Your task to perform on an android device: turn on location history Image 0: 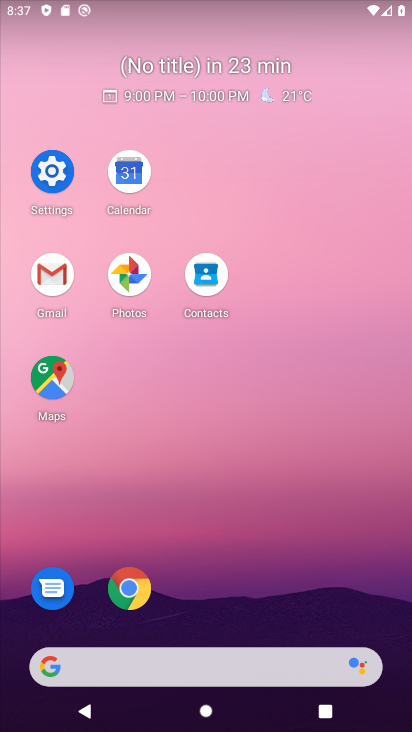
Step 0: click (43, 168)
Your task to perform on an android device: turn on location history Image 1: 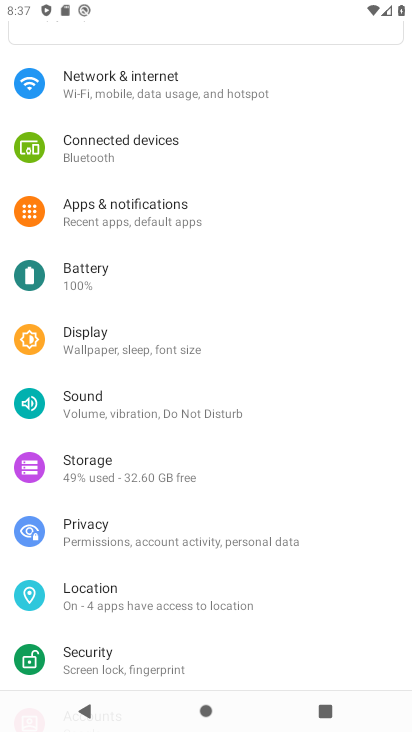
Step 1: click (210, 590)
Your task to perform on an android device: turn on location history Image 2: 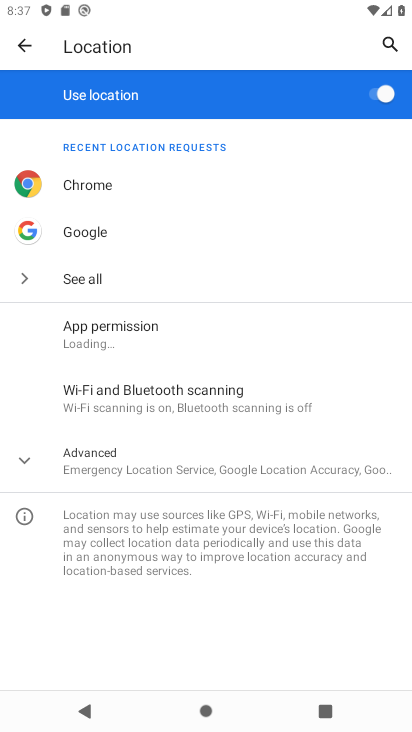
Step 2: click (240, 455)
Your task to perform on an android device: turn on location history Image 3: 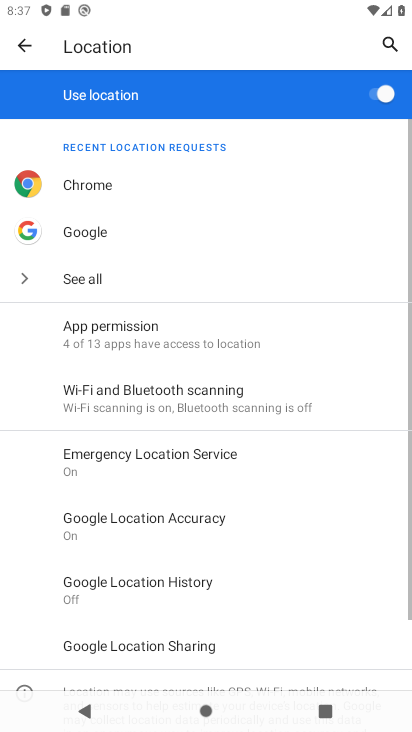
Step 3: click (202, 586)
Your task to perform on an android device: turn on location history Image 4: 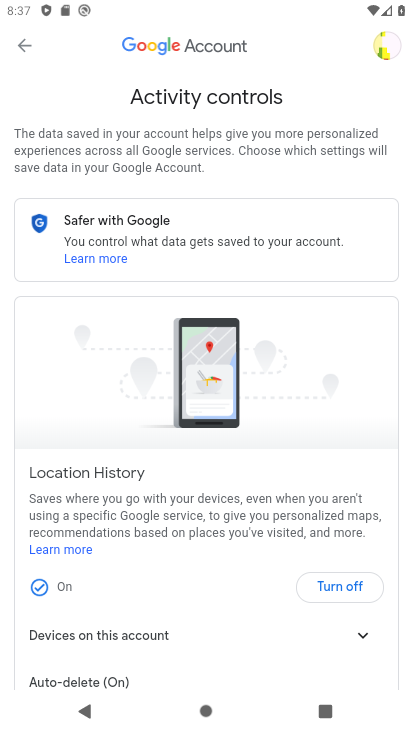
Step 4: task complete